Your task to perform on an android device: Open wifi settings Image 0: 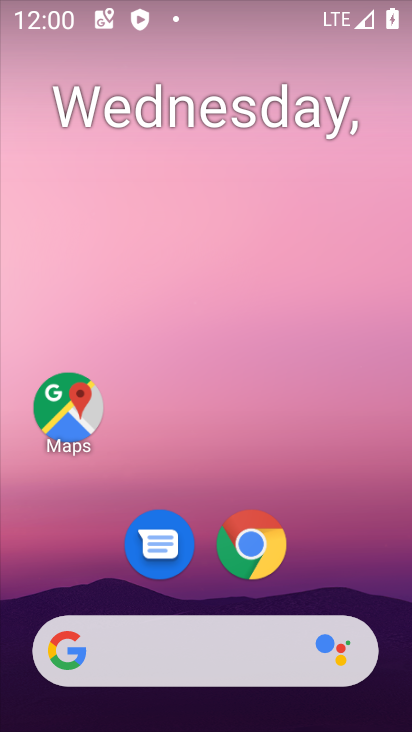
Step 0: drag from (387, 596) to (310, 111)
Your task to perform on an android device: Open wifi settings Image 1: 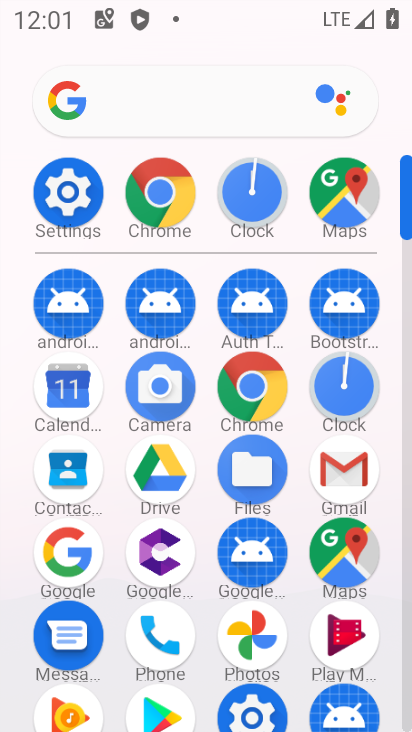
Step 1: click (66, 202)
Your task to perform on an android device: Open wifi settings Image 2: 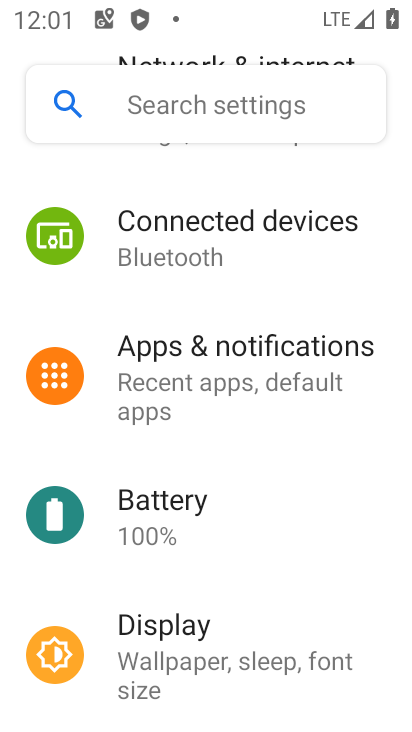
Step 2: drag from (247, 247) to (299, 730)
Your task to perform on an android device: Open wifi settings Image 3: 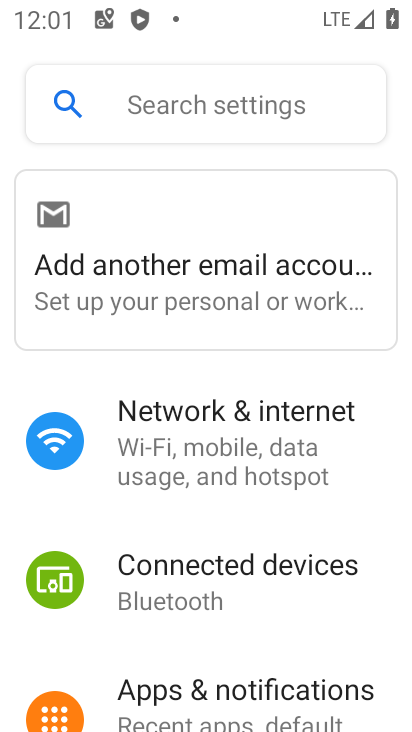
Step 3: click (261, 459)
Your task to perform on an android device: Open wifi settings Image 4: 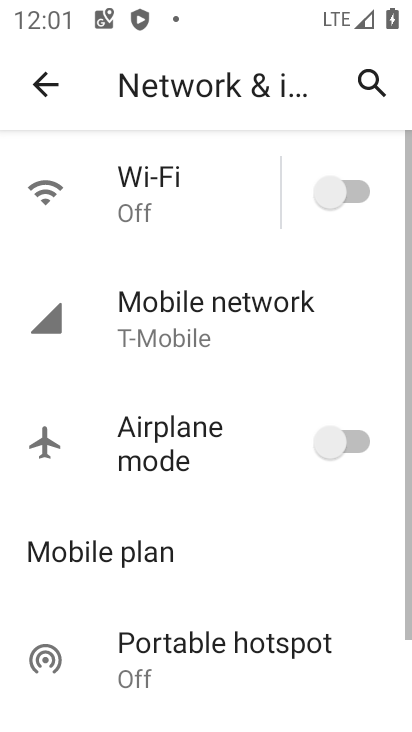
Step 4: click (171, 192)
Your task to perform on an android device: Open wifi settings Image 5: 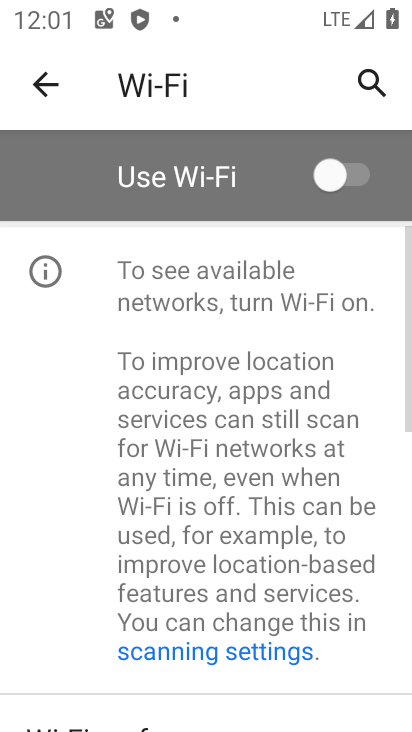
Step 5: task complete